Your task to perform on an android device: change timer sound Image 0: 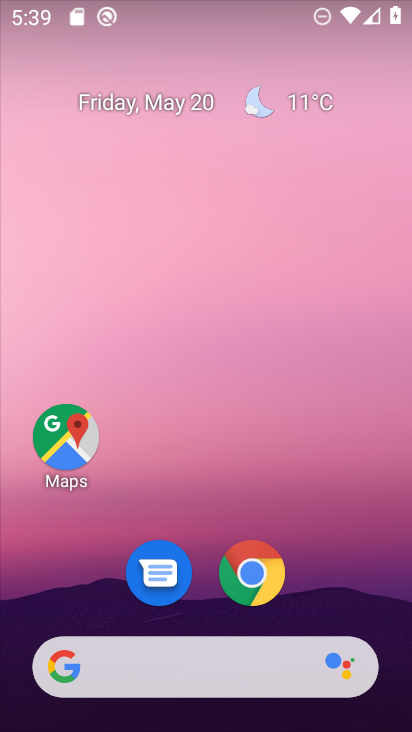
Step 0: drag from (340, 567) to (137, 32)
Your task to perform on an android device: change timer sound Image 1: 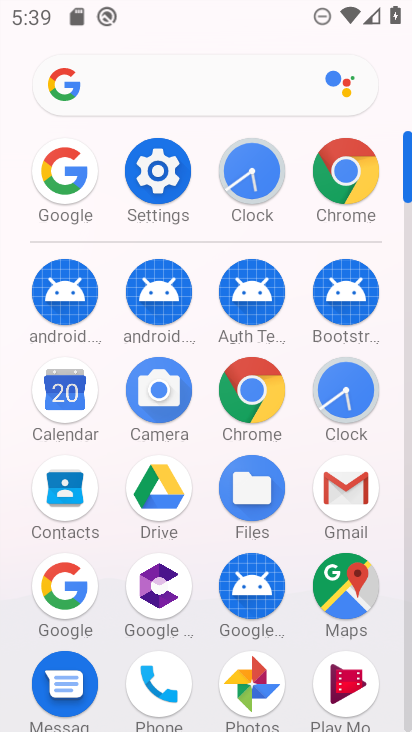
Step 1: click (338, 404)
Your task to perform on an android device: change timer sound Image 2: 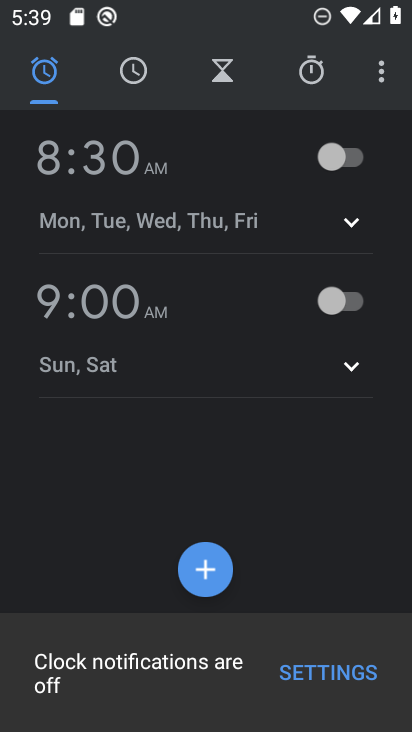
Step 2: click (386, 77)
Your task to perform on an android device: change timer sound Image 3: 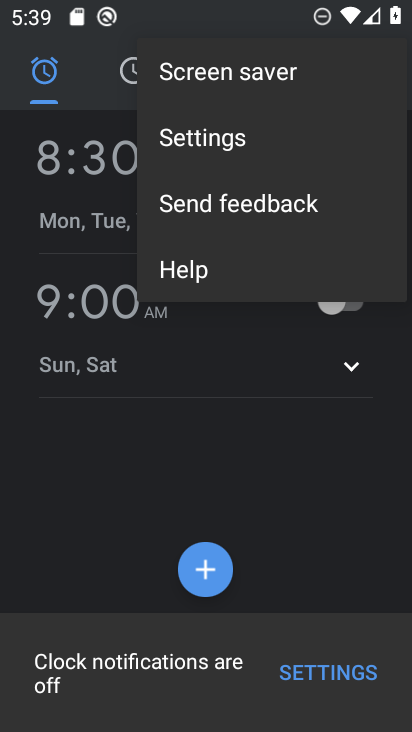
Step 3: click (223, 143)
Your task to perform on an android device: change timer sound Image 4: 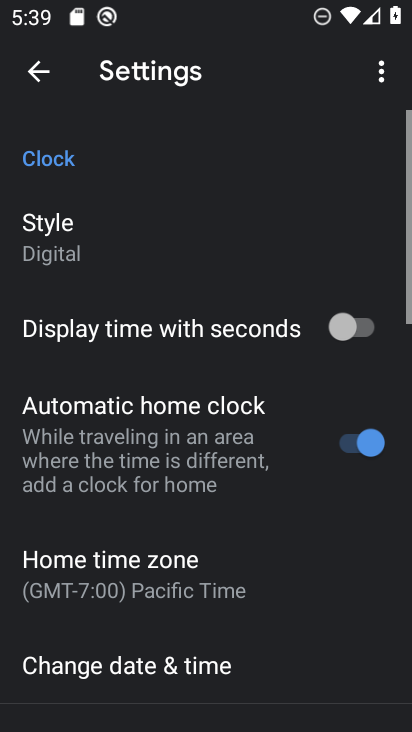
Step 4: drag from (248, 604) to (163, 221)
Your task to perform on an android device: change timer sound Image 5: 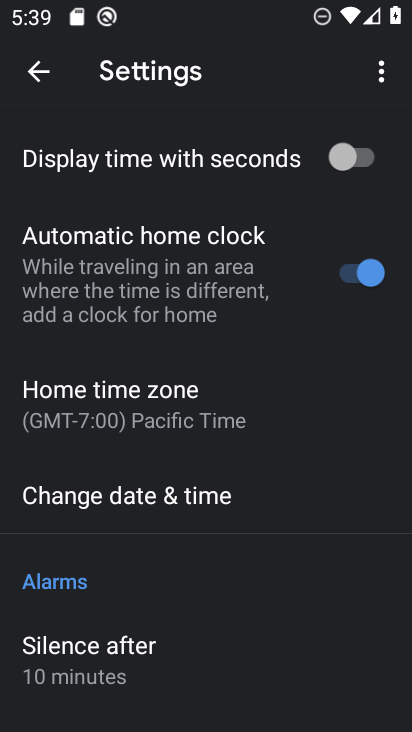
Step 5: drag from (219, 564) to (174, 159)
Your task to perform on an android device: change timer sound Image 6: 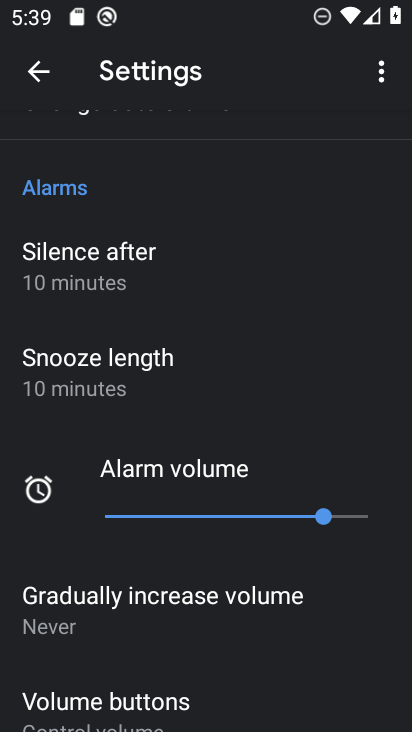
Step 6: drag from (241, 606) to (202, 310)
Your task to perform on an android device: change timer sound Image 7: 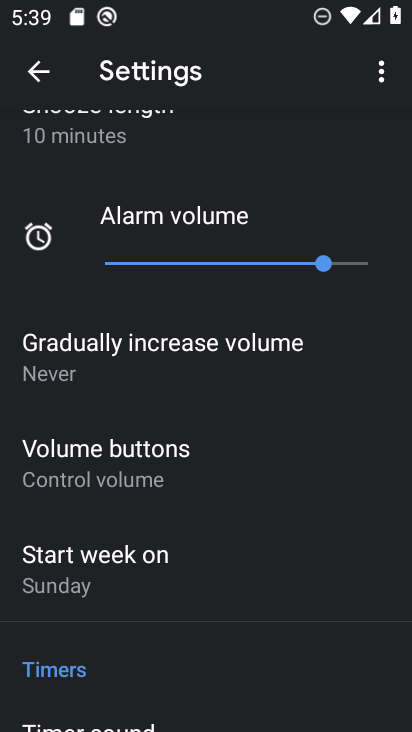
Step 7: drag from (212, 634) to (188, 355)
Your task to perform on an android device: change timer sound Image 8: 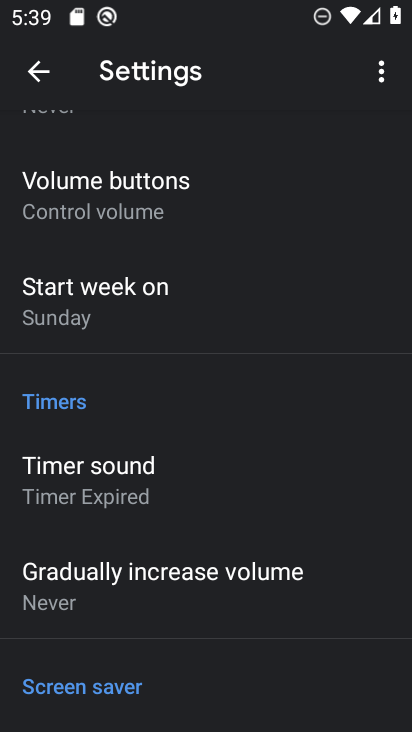
Step 8: click (157, 469)
Your task to perform on an android device: change timer sound Image 9: 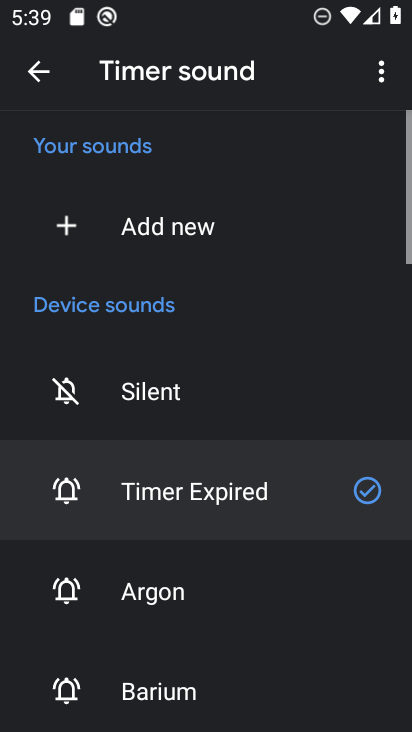
Step 9: drag from (227, 576) to (151, 161)
Your task to perform on an android device: change timer sound Image 10: 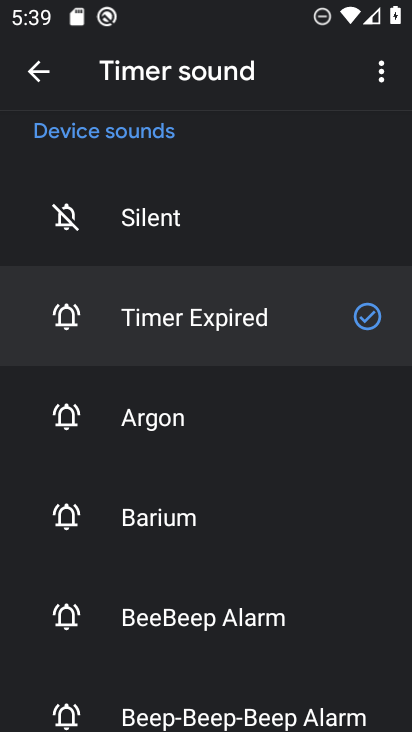
Step 10: click (263, 501)
Your task to perform on an android device: change timer sound Image 11: 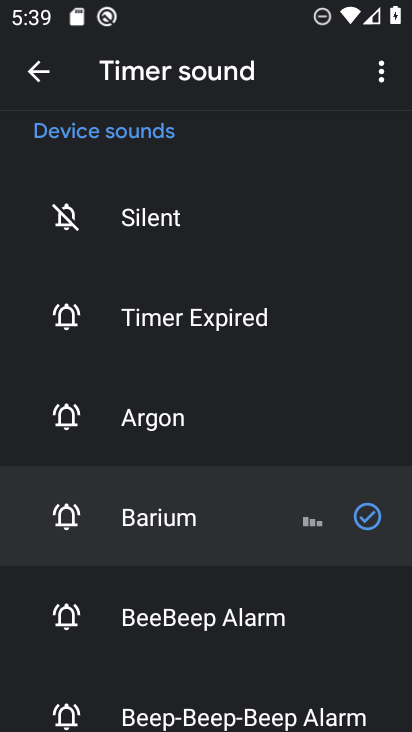
Step 11: task complete